Your task to perform on an android device: Turn on the flashlight Image 0: 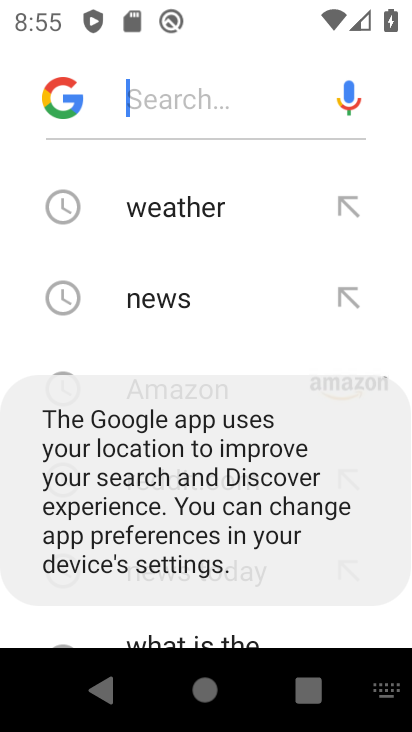
Step 0: press home button
Your task to perform on an android device: Turn on the flashlight Image 1: 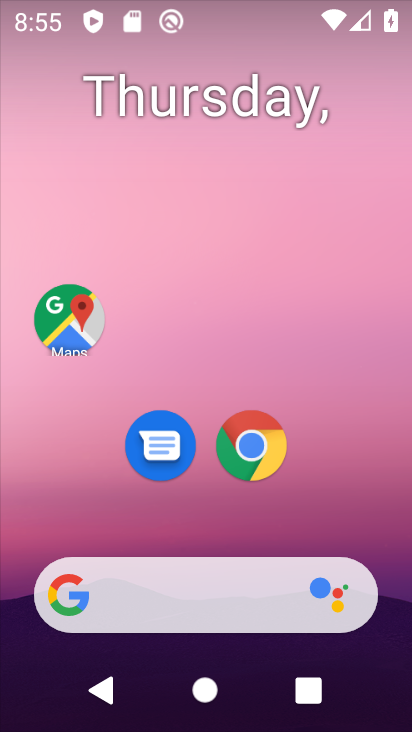
Step 1: drag from (201, 520) to (197, 0)
Your task to perform on an android device: Turn on the flashlight Image 2: 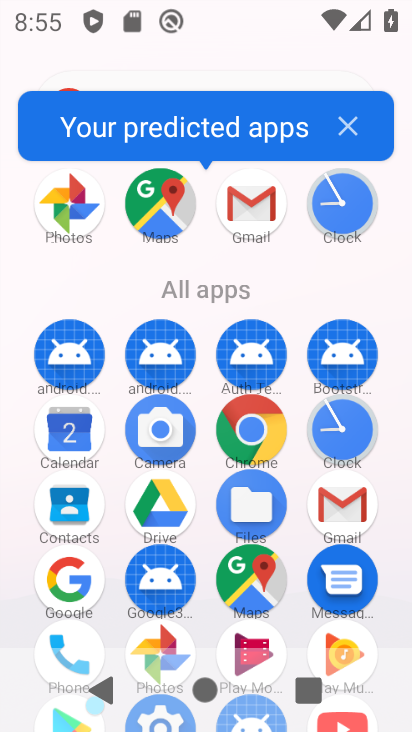
Step 2: drag from (298, 610) to (222, 114)
Your task to perform on an android device: Turn on the flashlight Image 3: 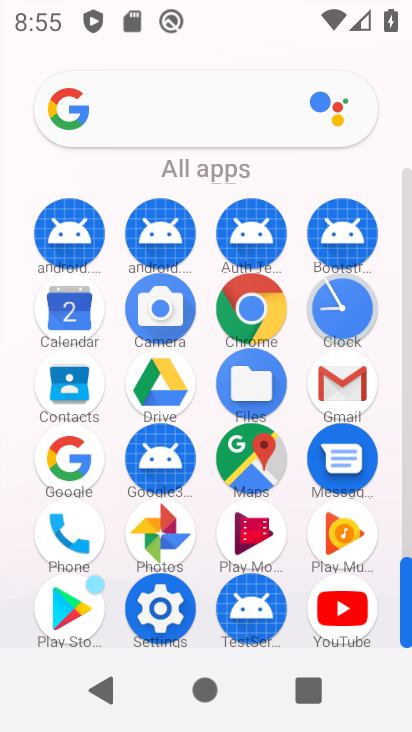
Step 3: click (152, 614)
Your task to perform on an android device: Turn on the flashlight Image 4: 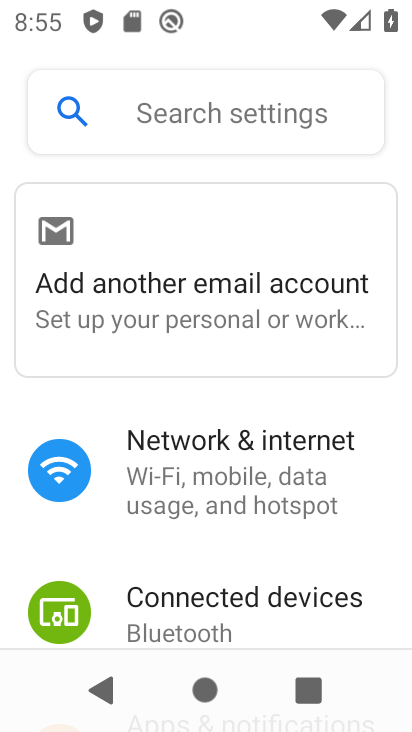
Step 4: task complete